Your task to perform on an android device: Go to Google maps Image 0: 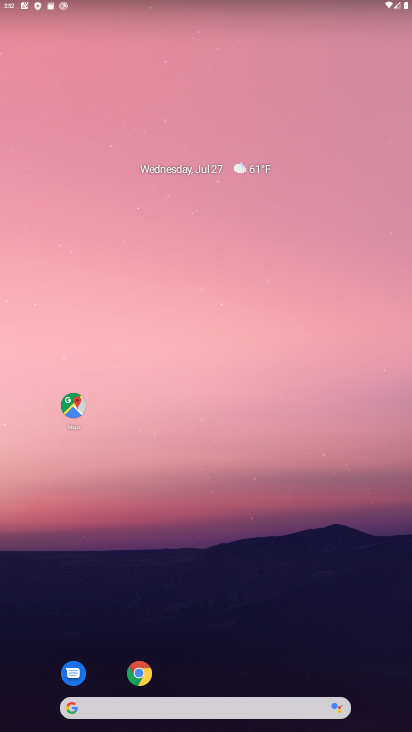
Step 0: drag from (281, 605) to (169, 5)
Your task to perform on an android device: Go to Google maps Image 1: 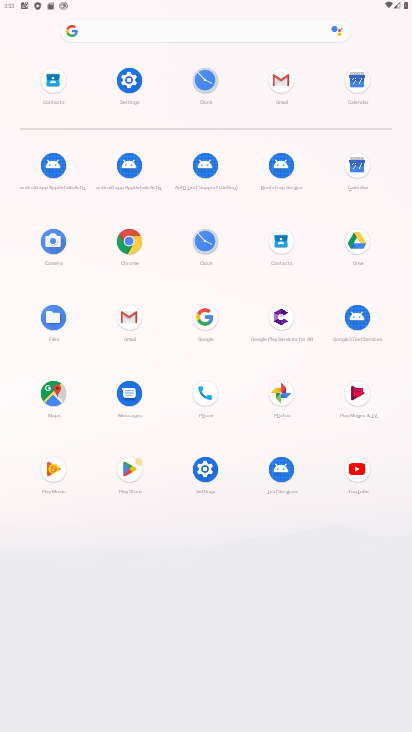
Step 1: click (44, 395)
Your task to perform on an android device: Go to Google maps Image 2: 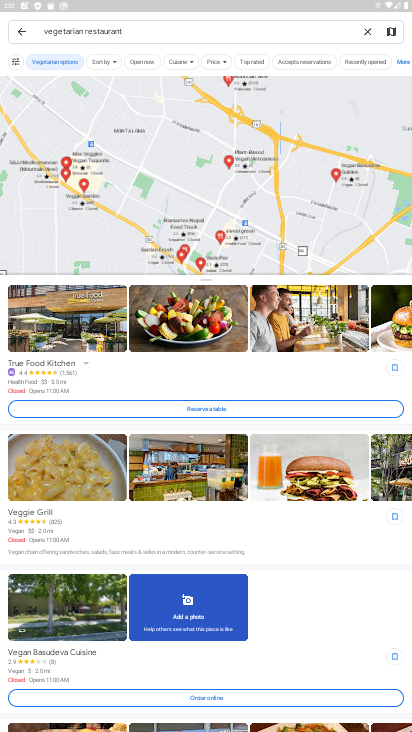
Step 2: task complete